Your task to perform on an android device: delete location history Image 0: 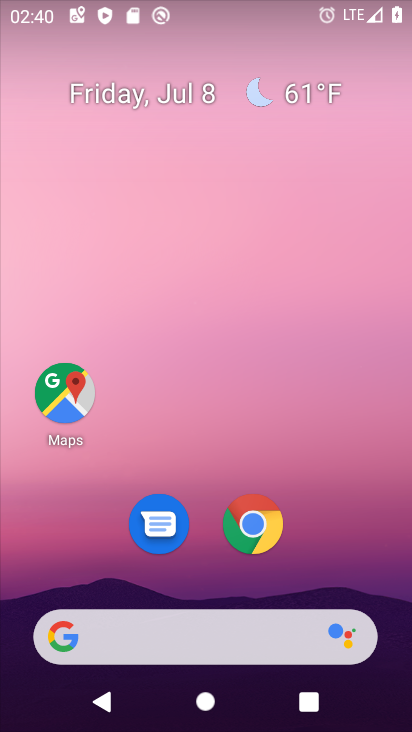
Step 0: click (72, 390)
Your task to perform on an android device: delete location history Image 1: 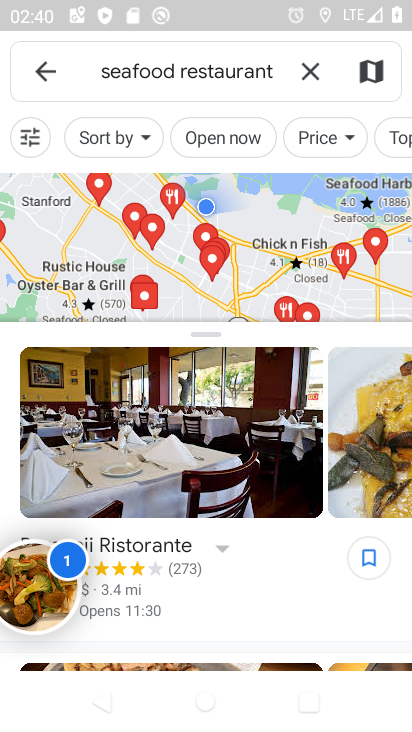
Step 1: click (43, 69)
Your task to perform on an android device: delete location history Image 2: 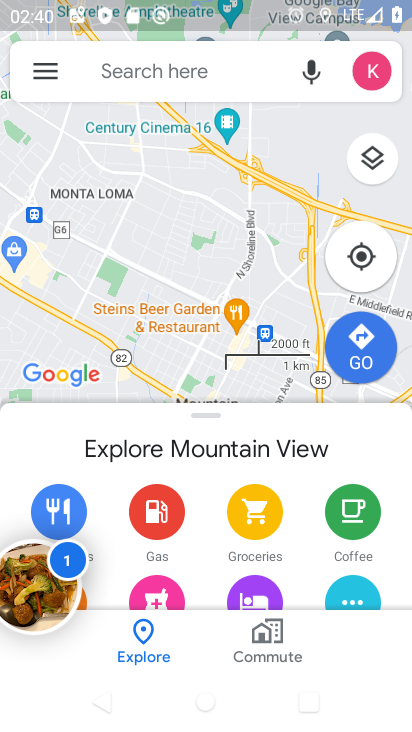
Step 2: click (43, 69)
Your task to perform on an android device: delete location history Image 3: 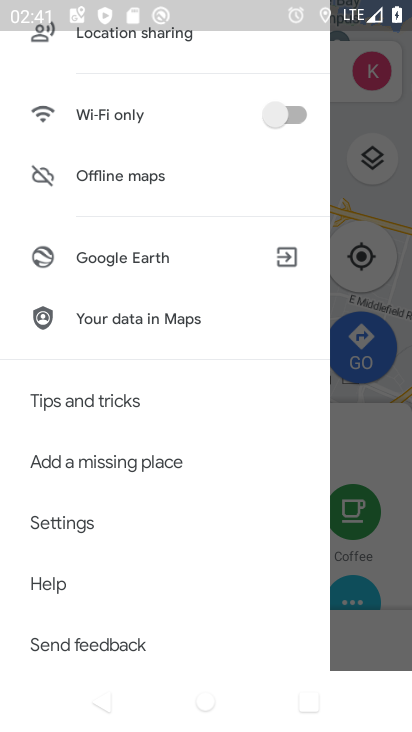
Step 3: drag from (193, 206) to (202, 694)
Your task to perform on an android device: delete location history Image 4: 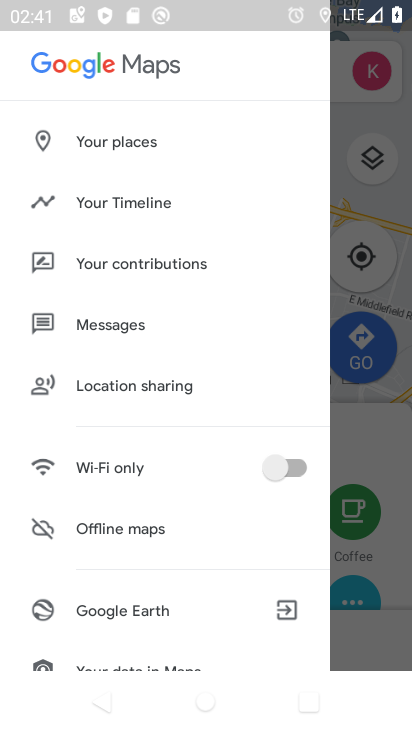
Step 4: click (143, 202)
Your task to perform on an android device: delete location history Image 5: 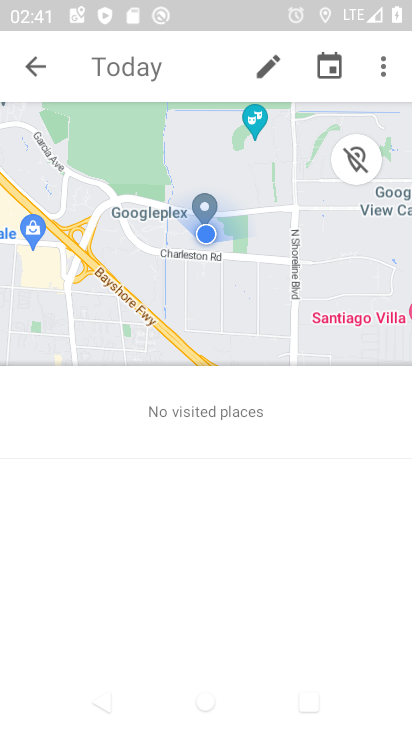
Step 5: click (382, 75)
Your task to perform on an android device: delete location history Image 6: 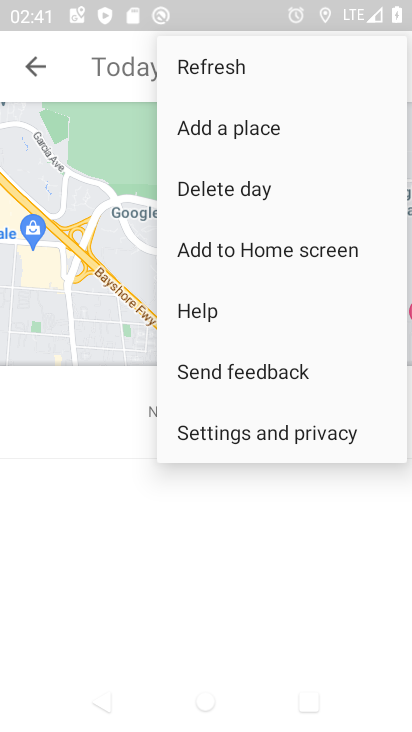
Step 6: click (311, 438)
Your task to perform on an android device: delete location history Image 7: 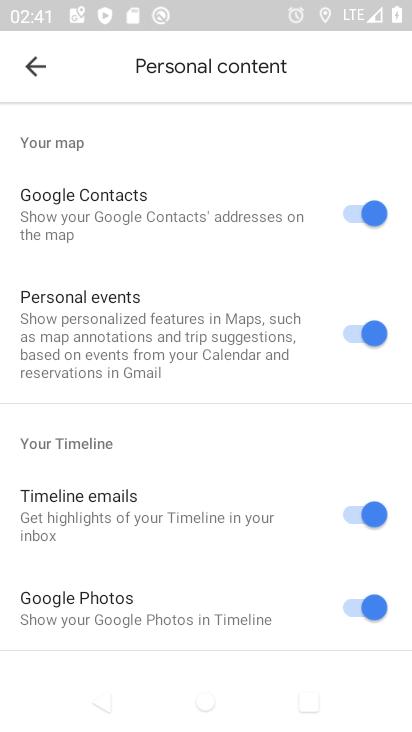
Step 7: drag from (203, 549) to (209, 0)
Your task to perform on an android device: delete location history Image 8: 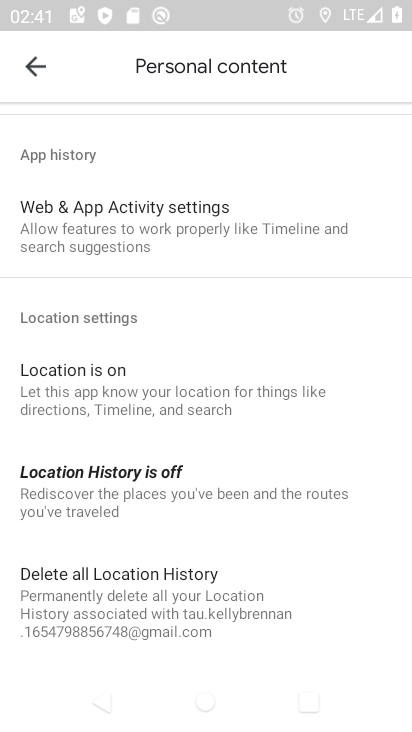
Step 8: click (207, 589)
Your task to perform on an android device: delete location history Image 9: 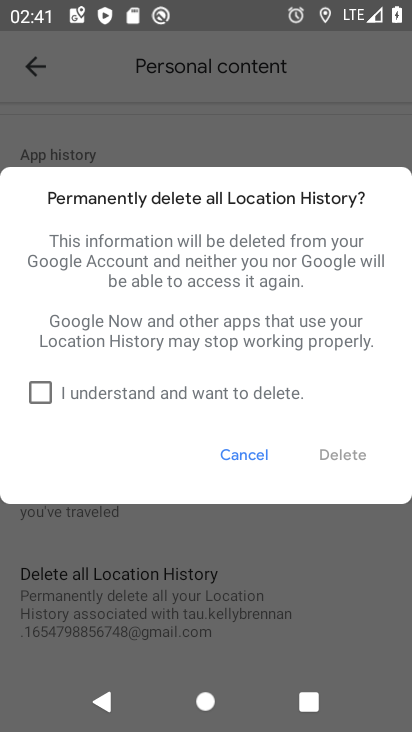
Step 9: click (37, 386)
Your task to perform on an android device: delete location history Image 10: 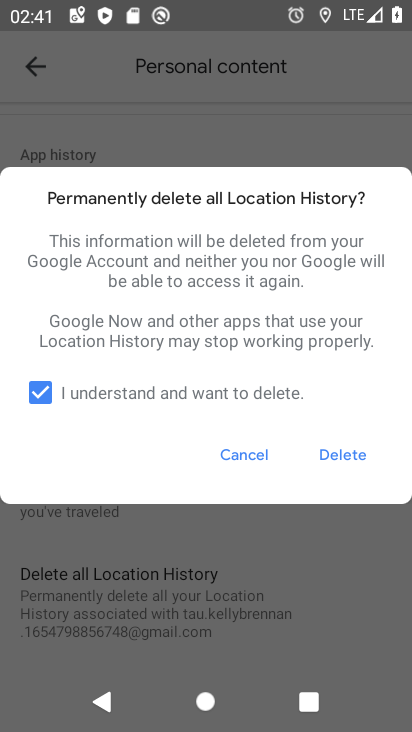
Step 10: click (352, 452)
Your task to perform on an android device: delete location history Image 11: 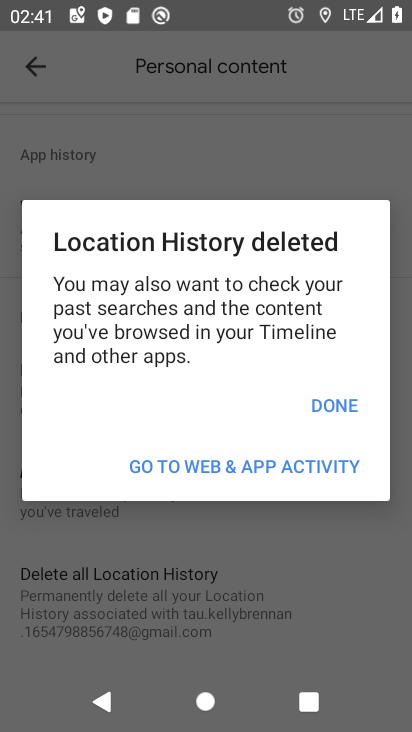
Step 11: click (347, 401)
Your task to perform on an android device: delete location history Image 12: 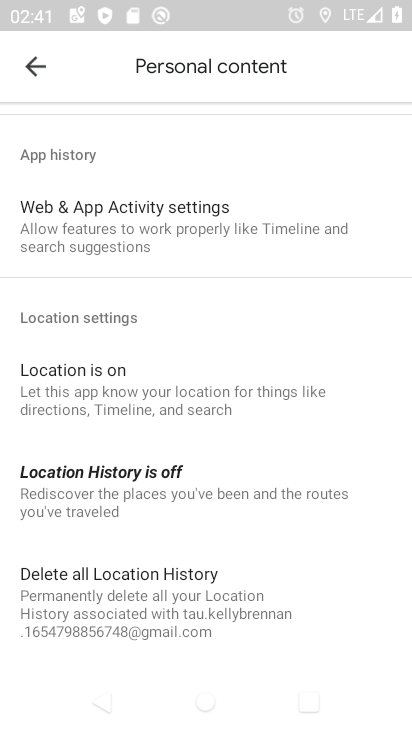
Step 12: task complete